Your task to perform on an android device: set default search engine in the chrome app Image 0: 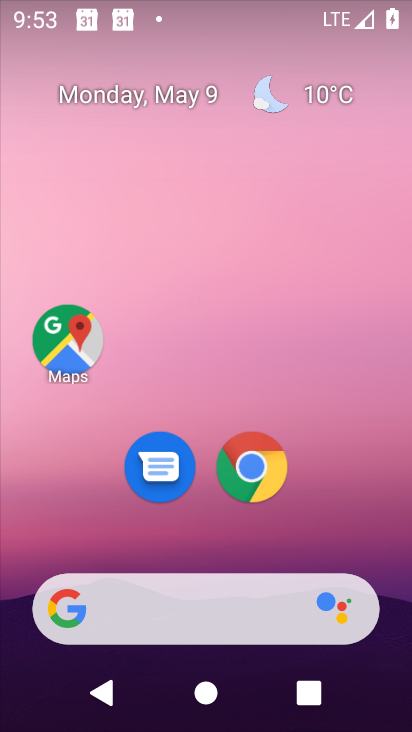
Step 0: click (262, 480)
Your task to perform on an android device: set default search engine in the chrome app Image 1: 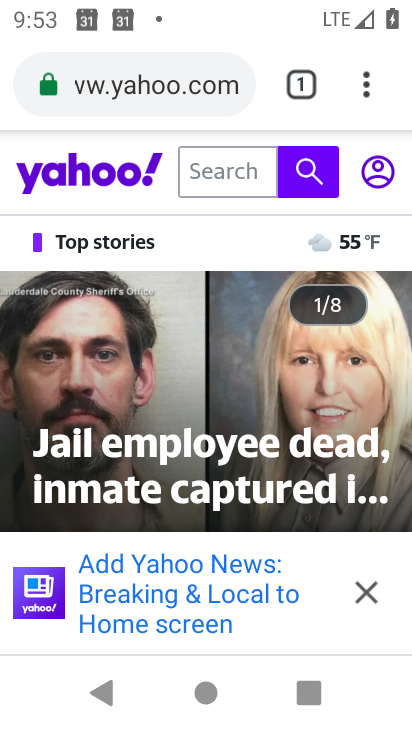
Step 1: click (360, 79)
Your task to perform on an android device: set default search engine in the chrome app Image 2: 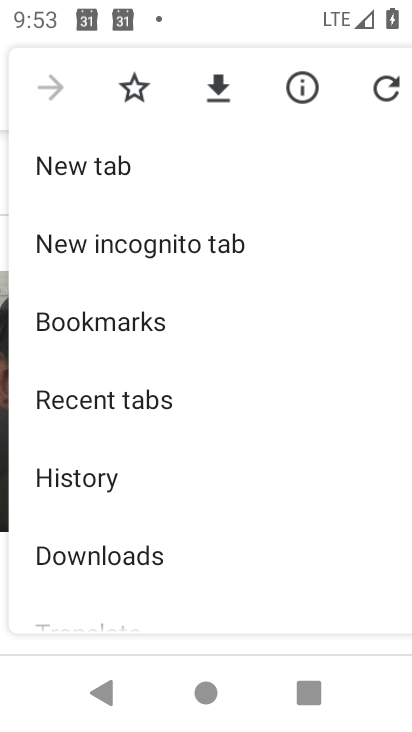
Step 2: drag from (206, 485) to (238, 58)
Your task to perform on an android device: set default search engine in the chrome app Image 3: 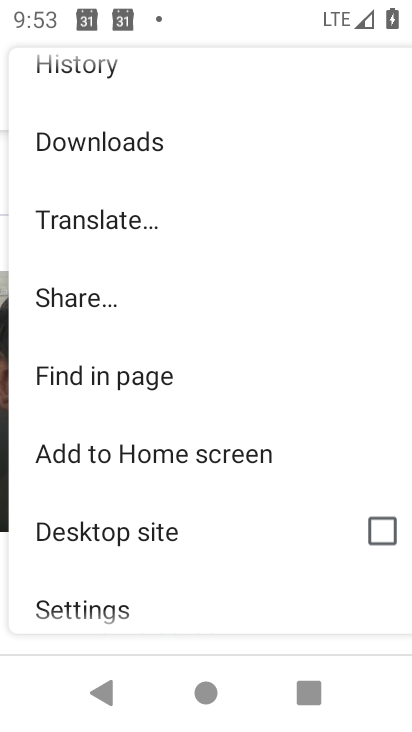
Step 3: click (92, 612)
Your task to perform on an android device: set default search engine in the chrome app Image 4: 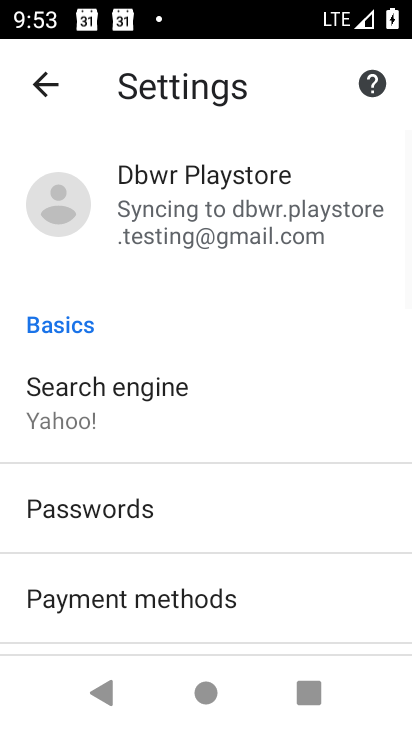
Step 4: click (83, 421)
Your task to perform on an android device: set default search engine in the chrome app Image 5: 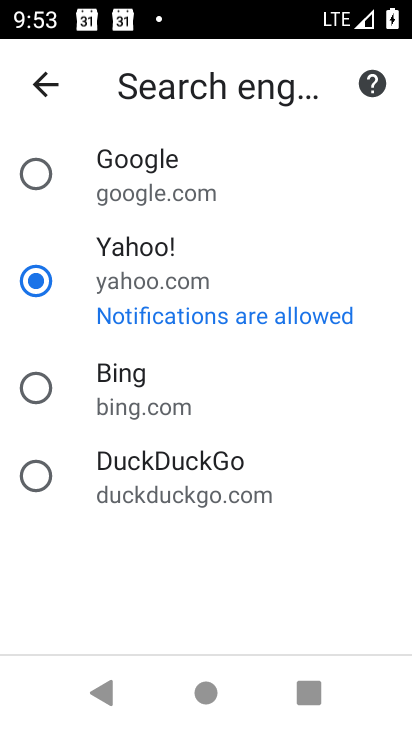
Step 5: click (24, 389)
Your task to perform on an android device: set default search engine in the chrome app Image 6: 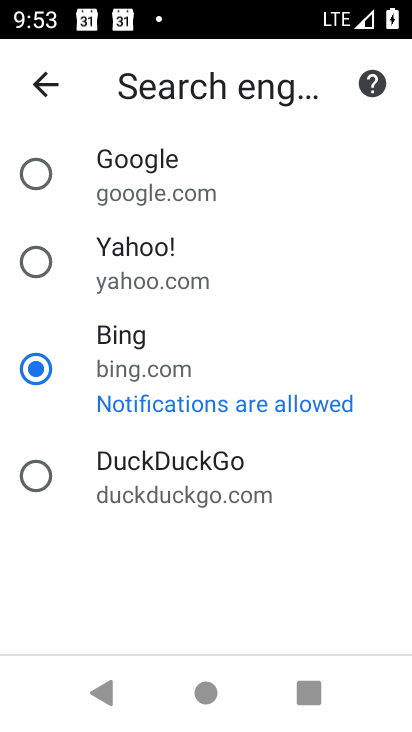
Step 6: task complete